Your task to perform on an android device: Open maps Image 0: 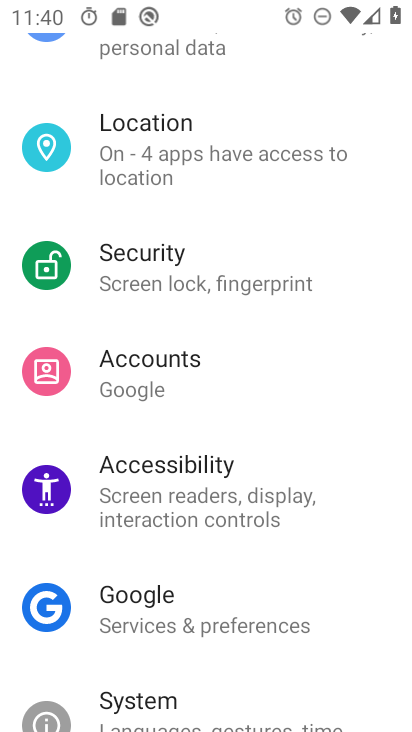
Step 0: press home button
Your task to perform on an android device: Open maps Image 1: 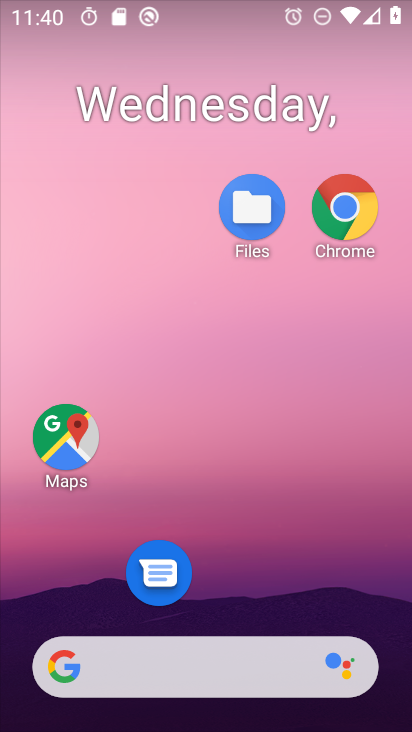
Step 1: drag from (259, 628) to (298, 256)
Your task to perform on an android device: Open maps Image 2: 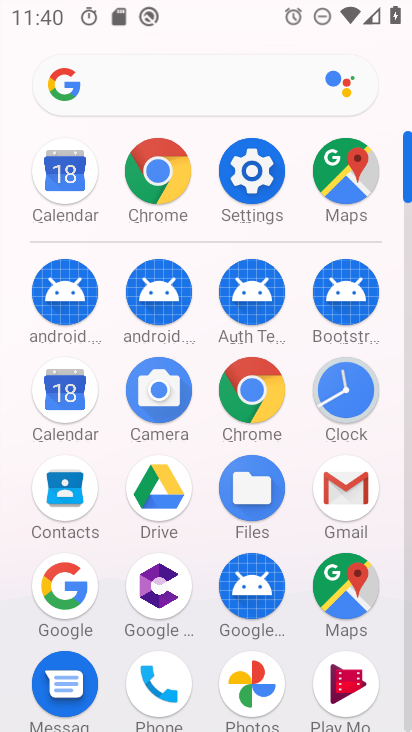
Step 2: click (336, 599)
Your task to perform on an android device: Open maps Image 3: 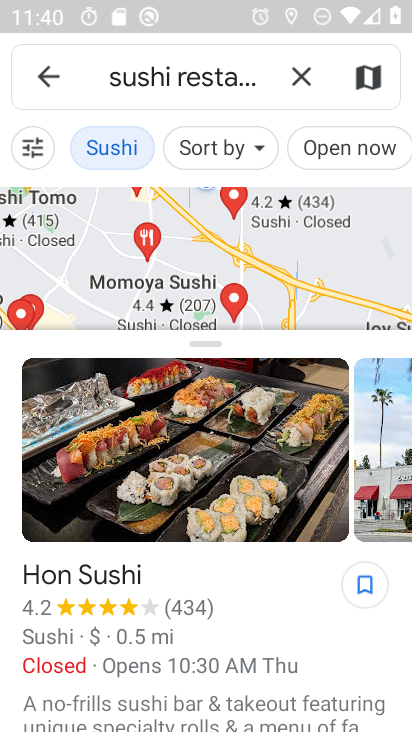
Step 3: task complete